Your task to perform on an android device: Go to Maps Image 0: 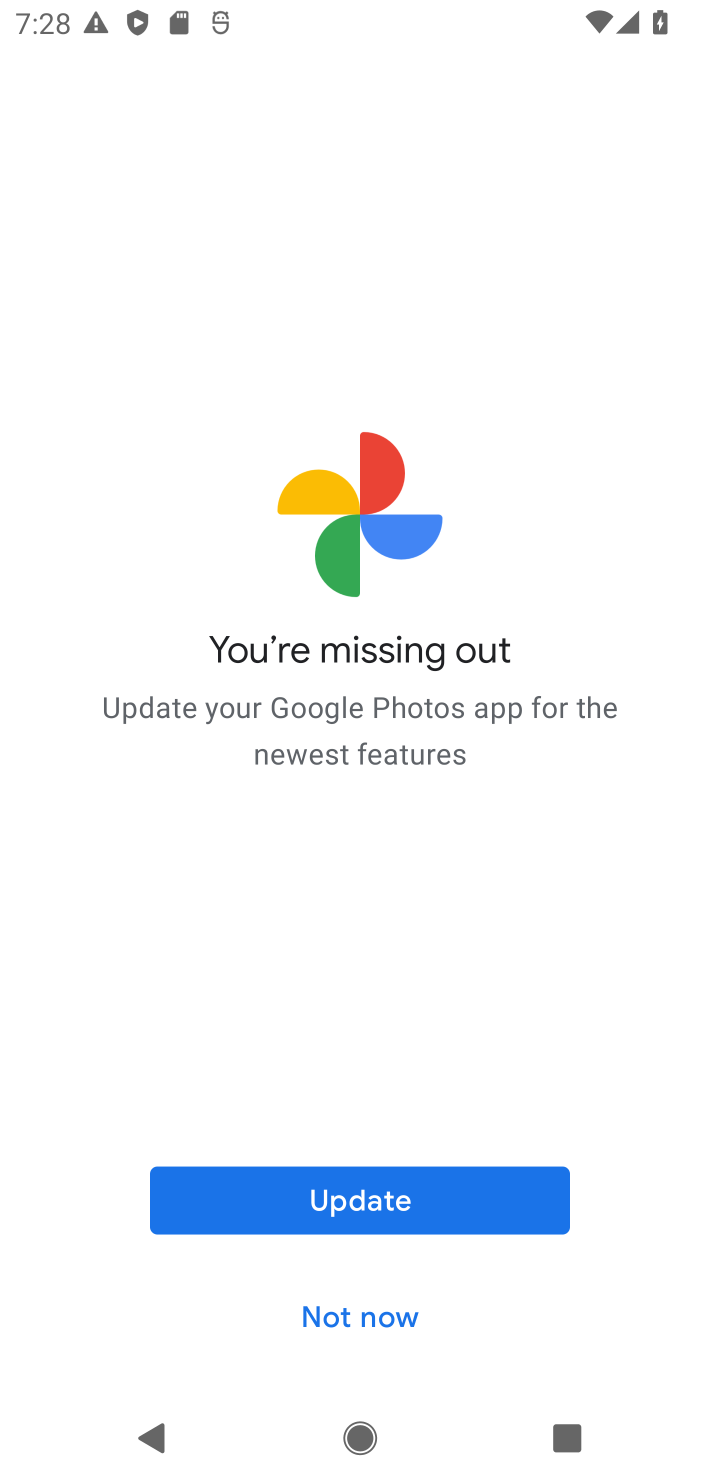
Step 0: press home button
Your task to perform on an android device: Go to Maps Image 1: 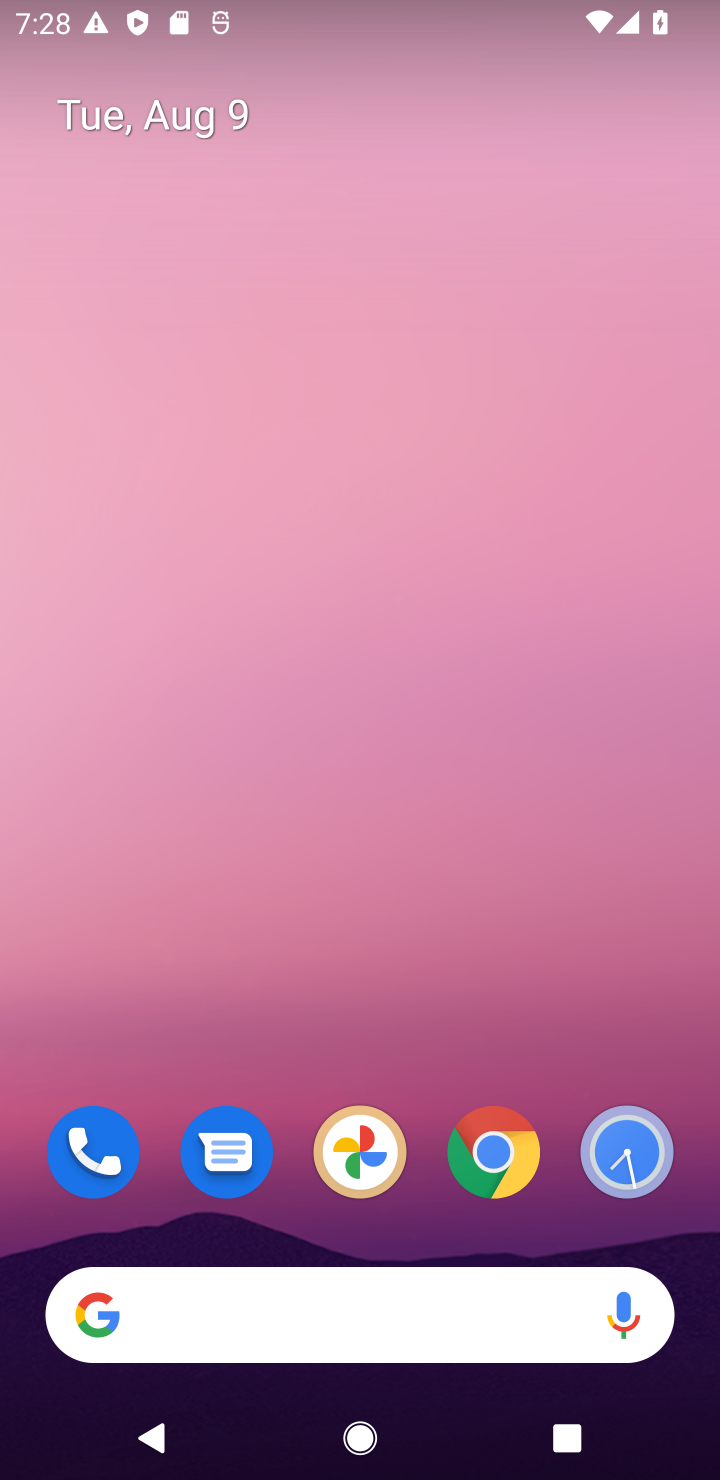
Step 1: drag from (281, 1107) to (295, 1023)
Your task to perform on an android device: Go to Maps Image 2: 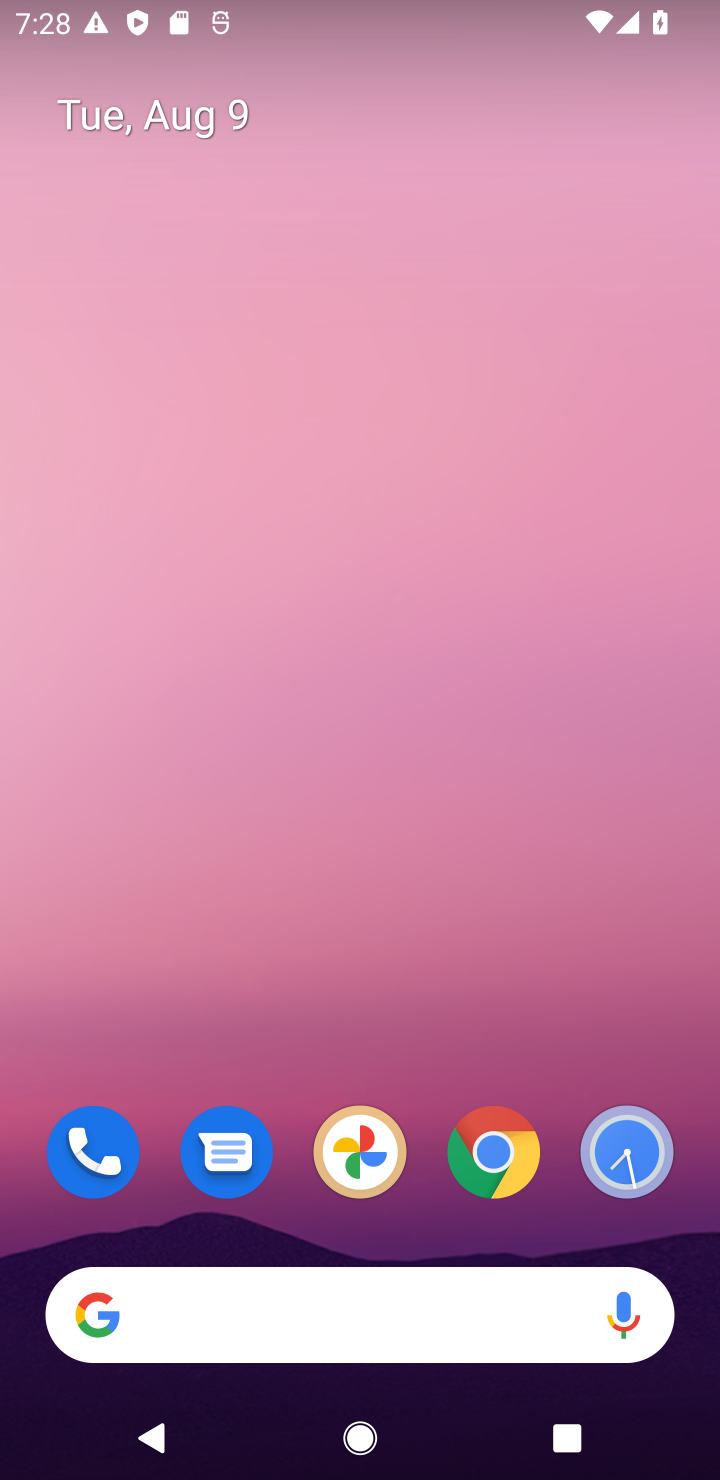
Step 2: drag from (354, 994) to (418, 158)
Your task to perform on an android device: Go to Maps Image 3: 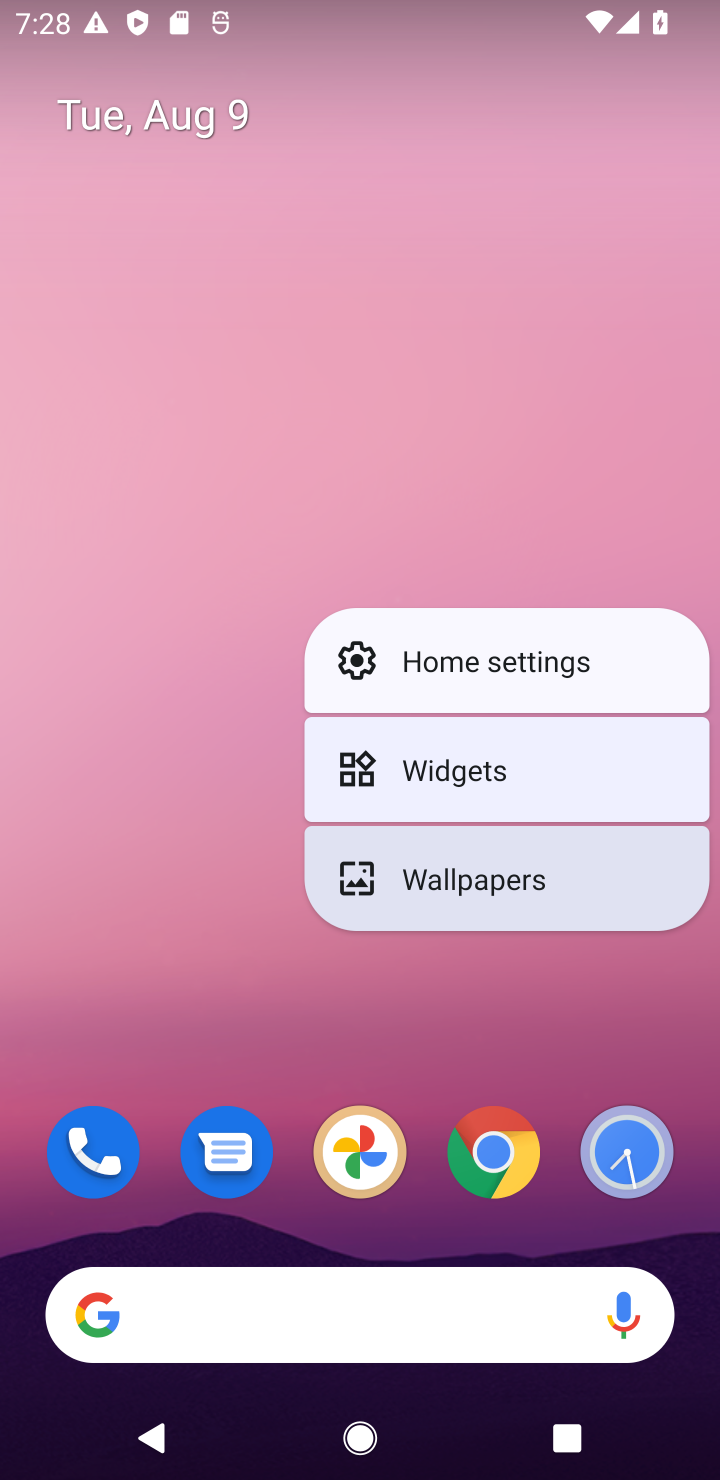
Step 3: click (196, 867)
Your task to perform on an android device: Go to Maps Image 4: 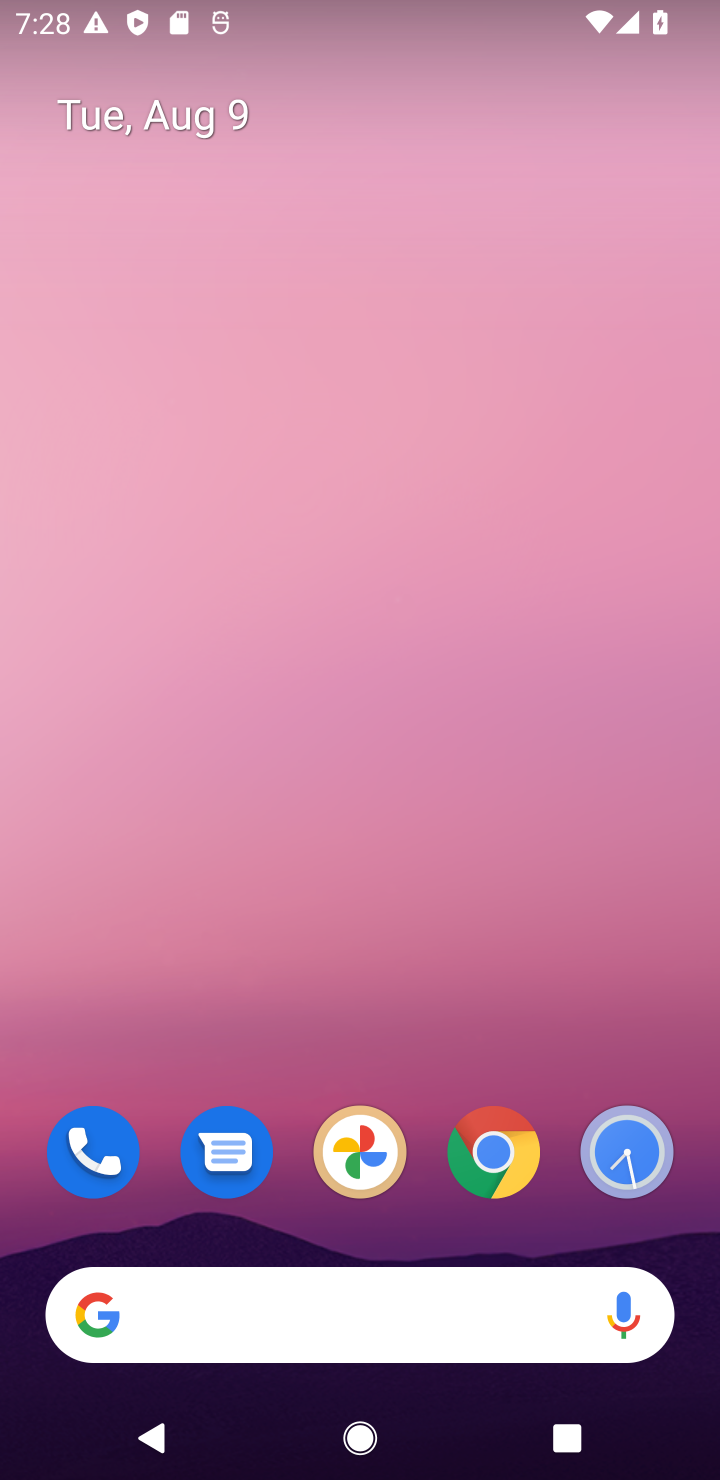
Step 4: drag from (290, 1007) to (342, 47)
Your task to perform on an android device: Go to Maps Image 5: 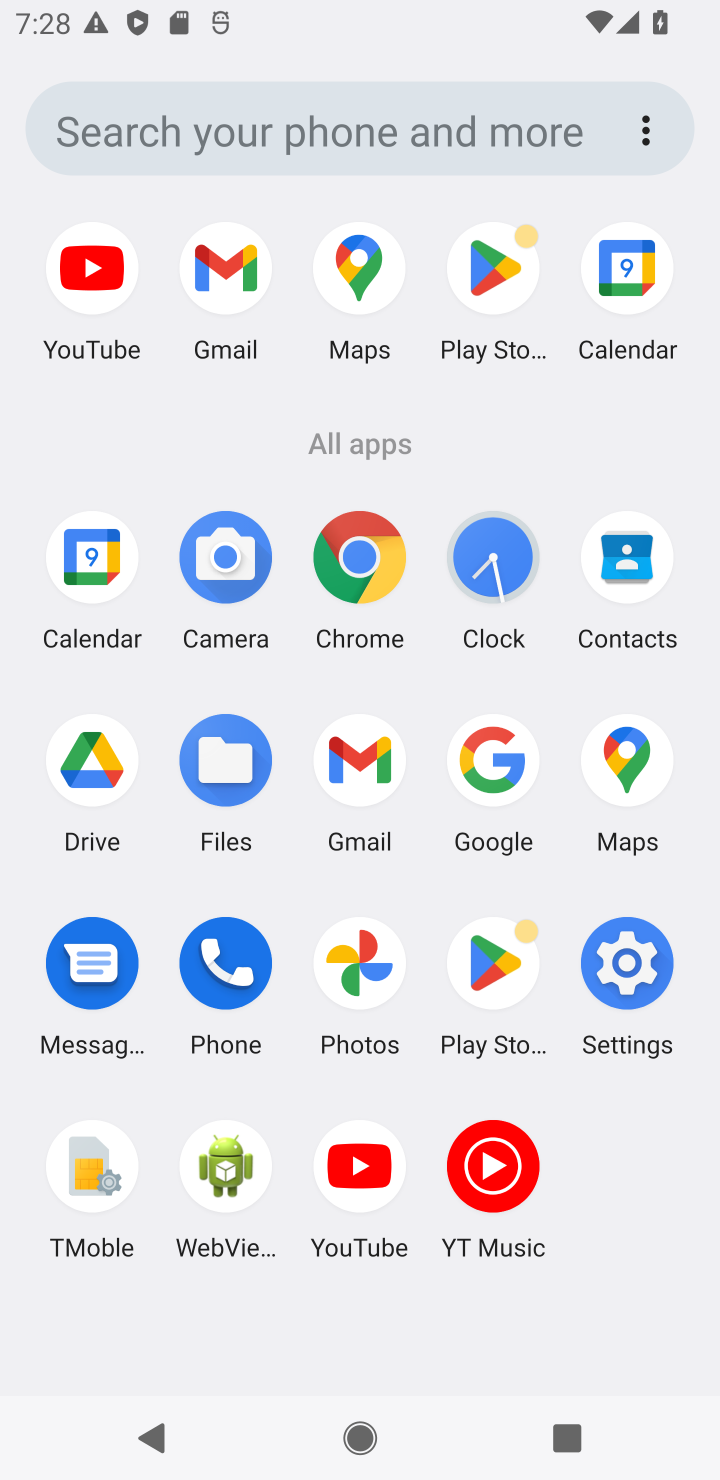
Step 5: click (381, 260)
Your task to perform on an android device: Go to Maps Image 6: 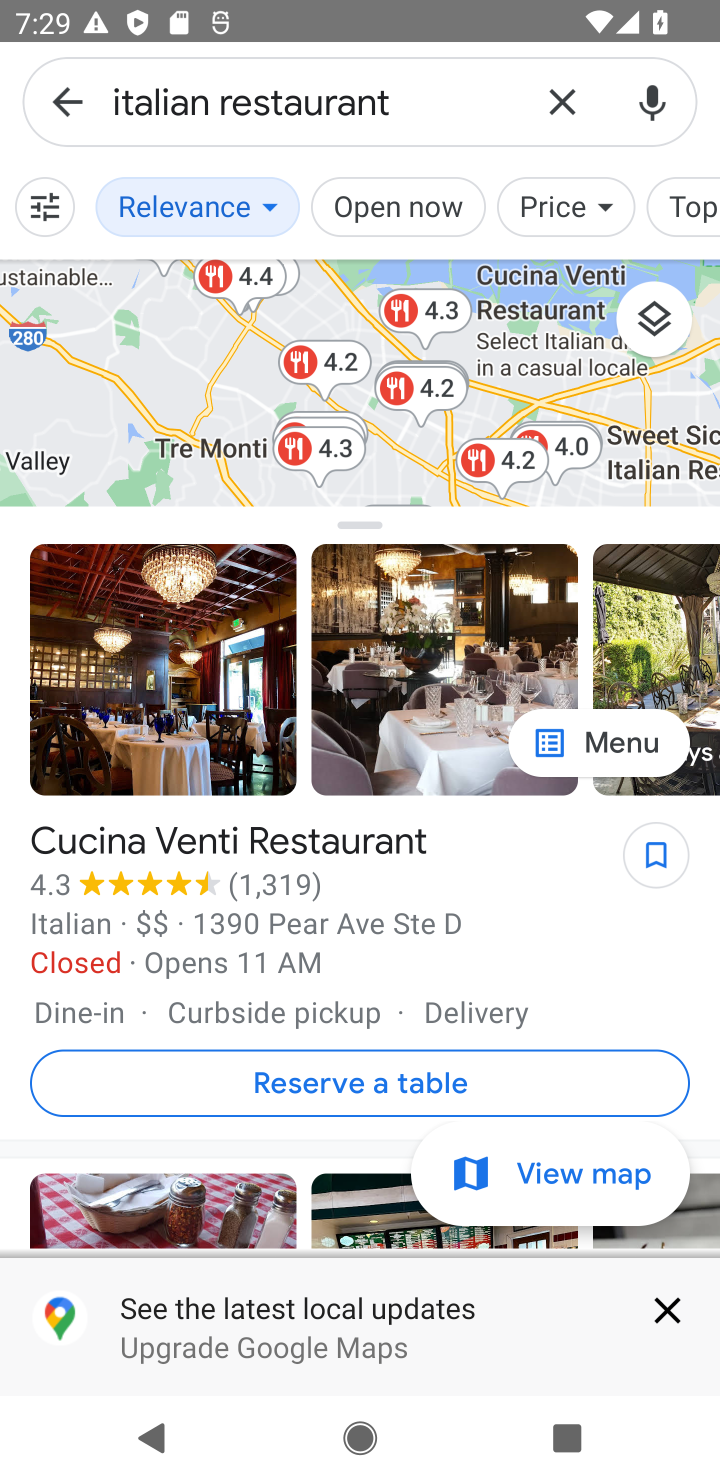
Step 6: task complete